Your task to perform on an android device: Open Amazon Image 0: 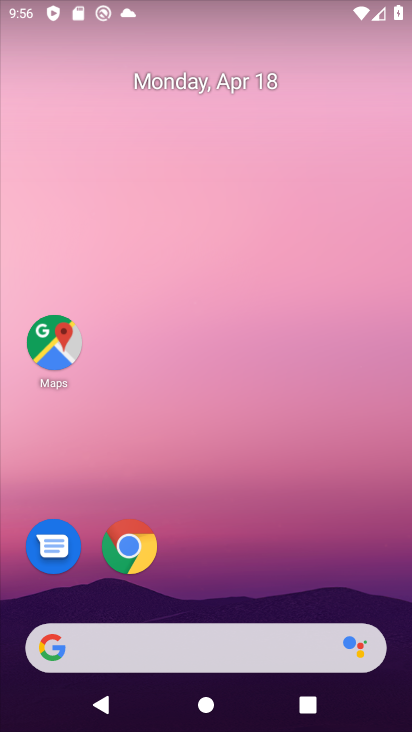
Step 0: click (129, 542)
Your task to perform on an android device: Open Amazon Image 1: 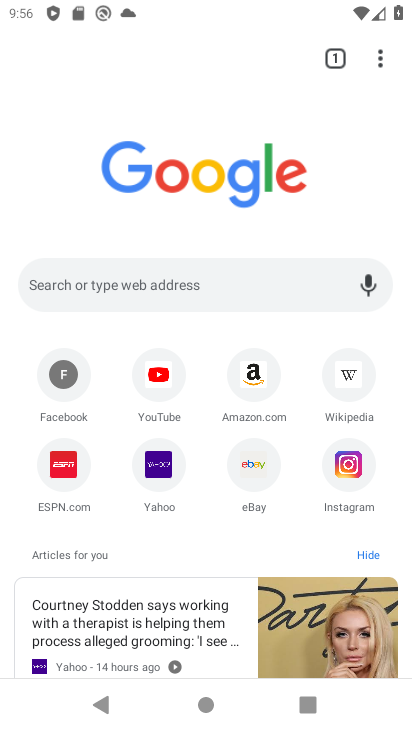
Step 1: click (254, 377)
Your task to perform on an android device: Open Amazon Image 2: 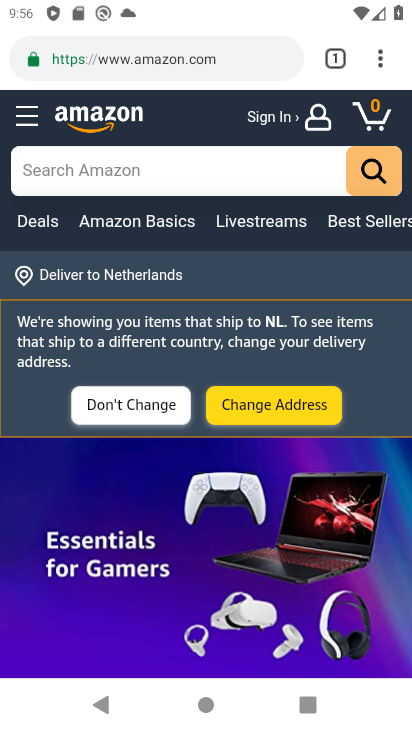
Step 2: task complete